Your task to perform on an android device: check the backup settings in the google photos Image 0: 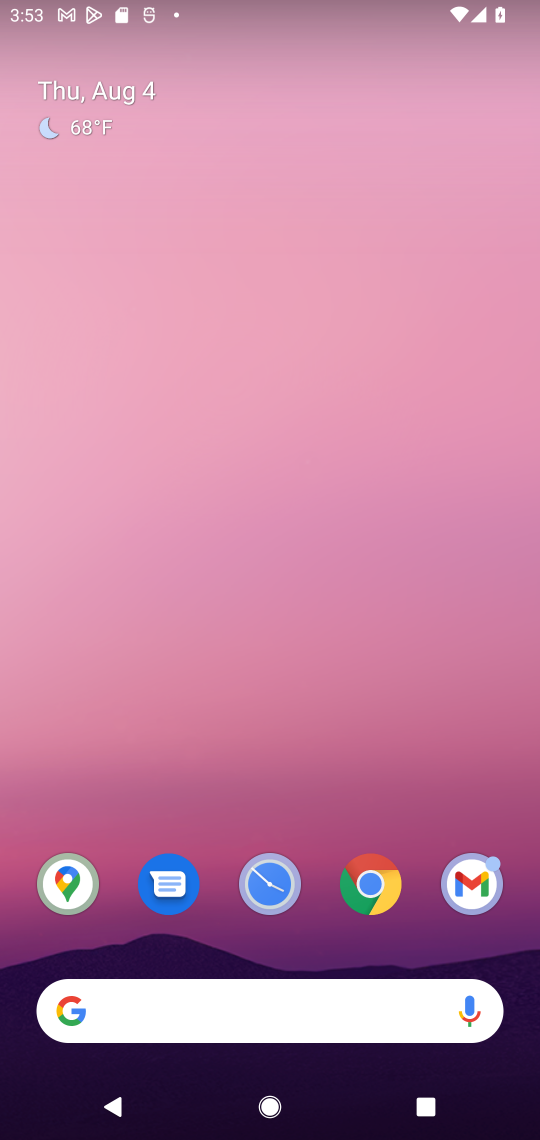
Step 0: drag from (226, 953) to (208, 209)
Your task to perform on an android device: check the backup settings in the google photos Image 1: 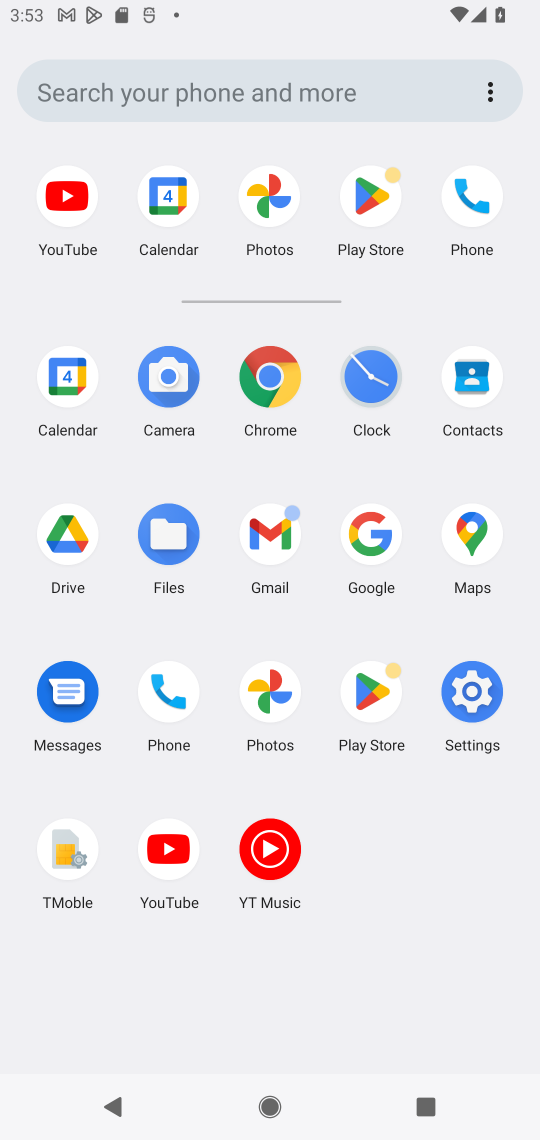
Step 1: click (305, 703)
Your task to perform on an android device: check the backup settings in the google photos Image 2: 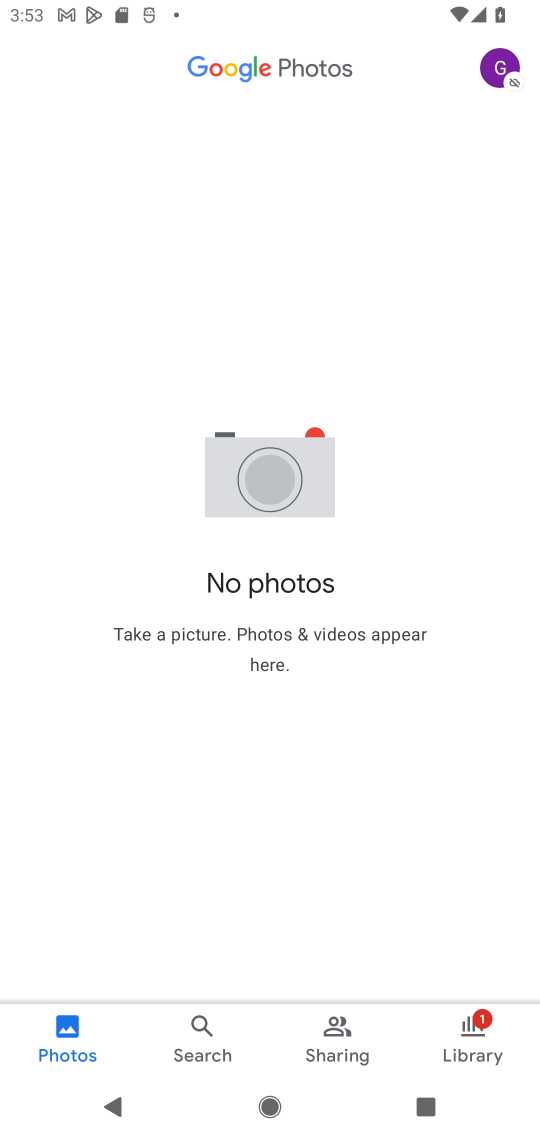
Step 2: task complete